Your task to perform on an android device: turn pop-ups on in chrome Image 0: 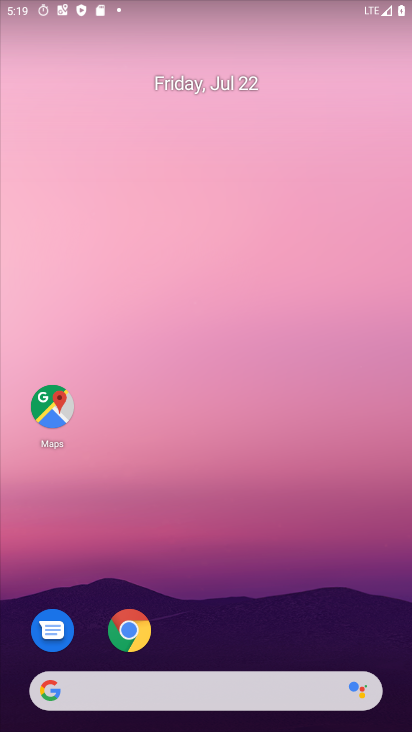
Step 0: drag from (261, 703) to (254, 0)
Your task to perform on an android device: turn pop-ups on in chrome Image 1: 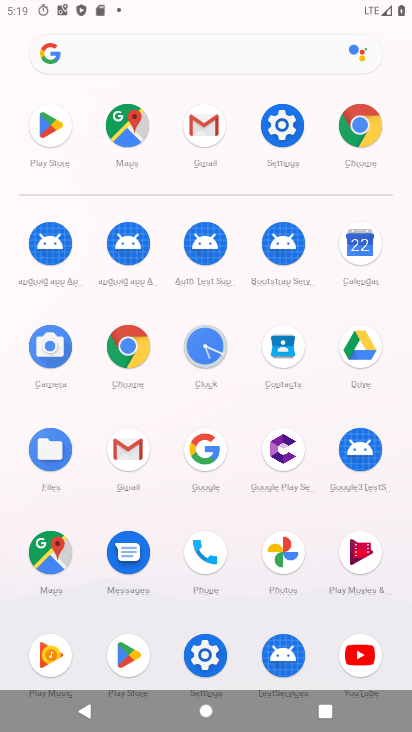
Step 1: click (115, 358)
Your task to perform on an android device: turn pop-ups on in chrome Image 2: 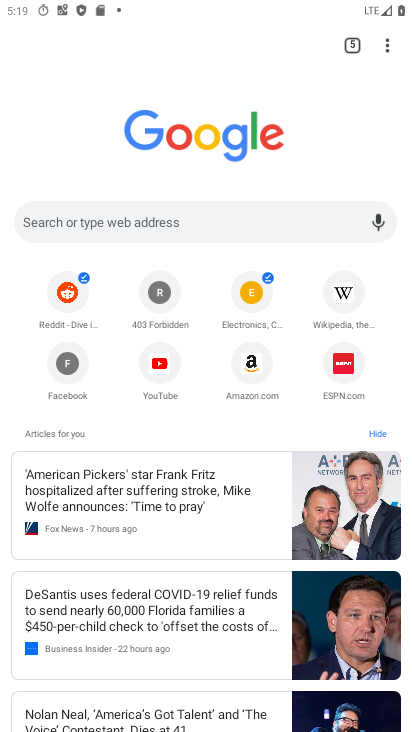
Step 2: drag from (388, 52) to (250, 384)
Your task to perform on an android device: turn pop-ups on in chrome Image 3: 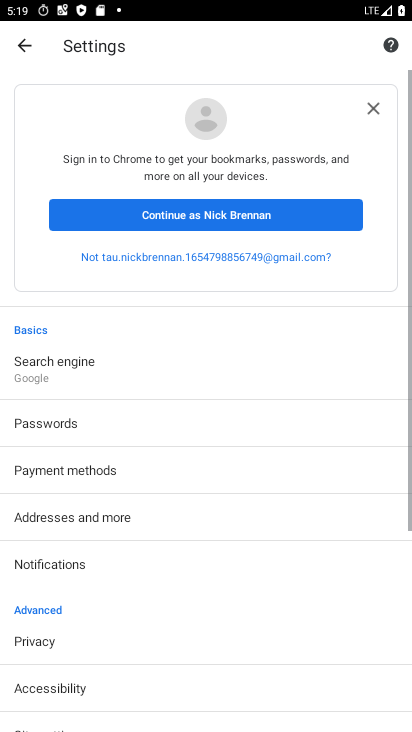
Step 3: drag from (220, 563) to (226, 97)
Your task to perform on an android device: turn pop-ups on in chrome Image 4: 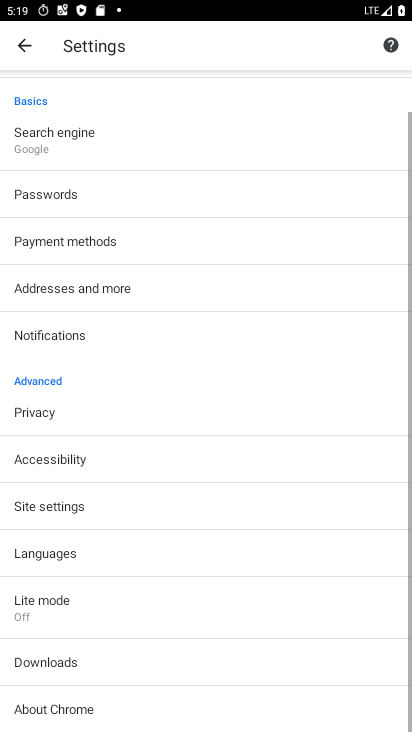
Step 4: click (58, 510)
Your task to perform on an android device: turn pop-ups on in chrome Image 5: 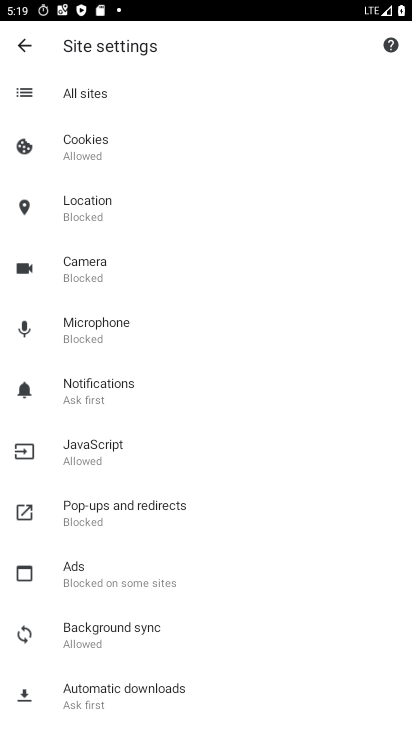
Step 5: click (109, 505)
Your task to perform on an android device: turn pop-ups on in chrome Image 6: 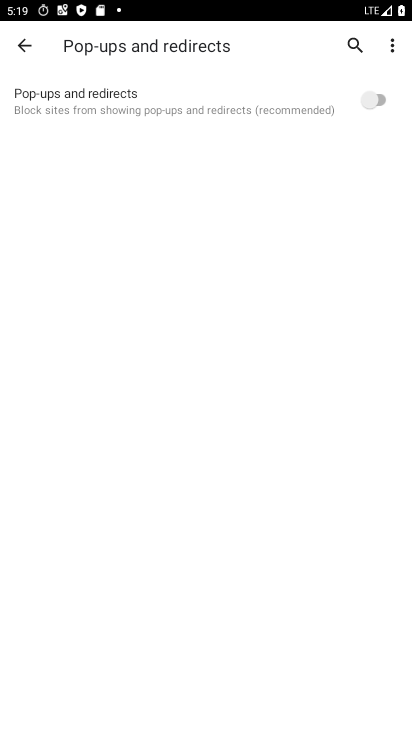
Step 6: click (381, 102)
Your task to perform on an android device: turn pop-ups on in chrome Image 7: 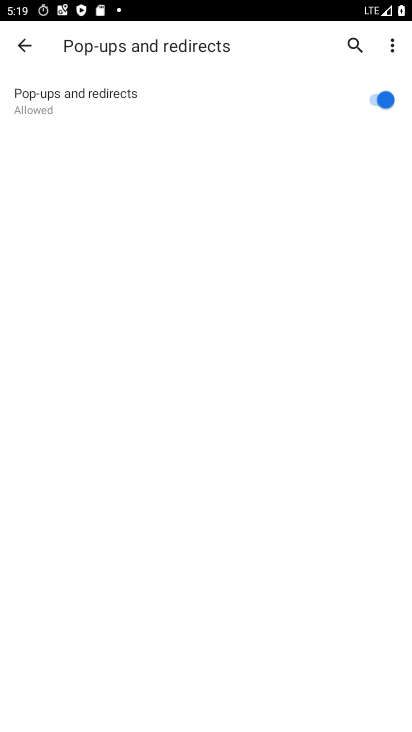
Step 7: task complete